Your task to perform on an android device: Open maps Image 0: 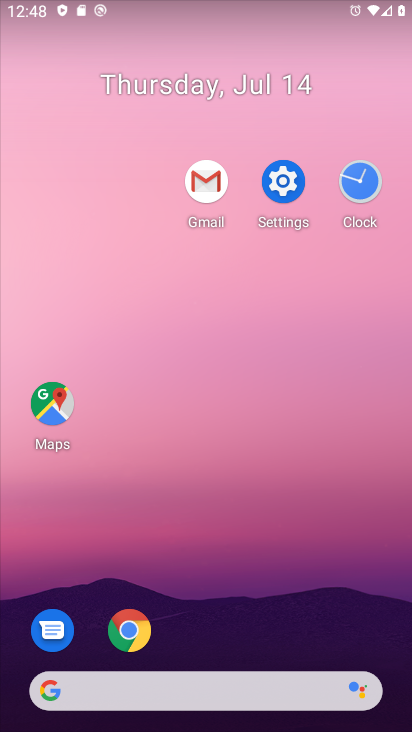
Step 0: click (60, 400)
Your task to perform on an android device: Open maps Image 1: 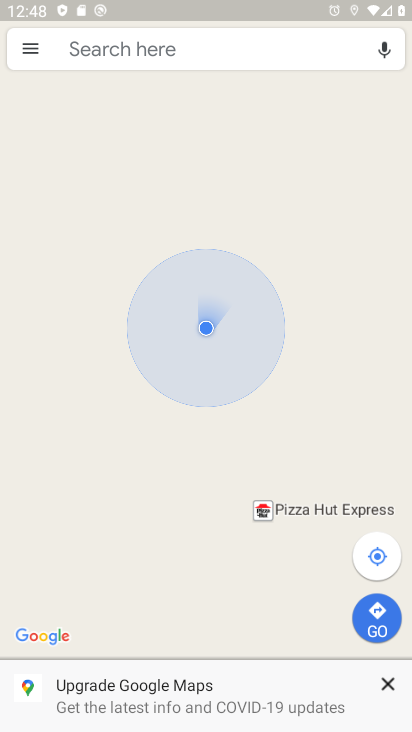
Step 1: task complete